Your task to perform on an android device: open a new tab in the chrome app Image 0: 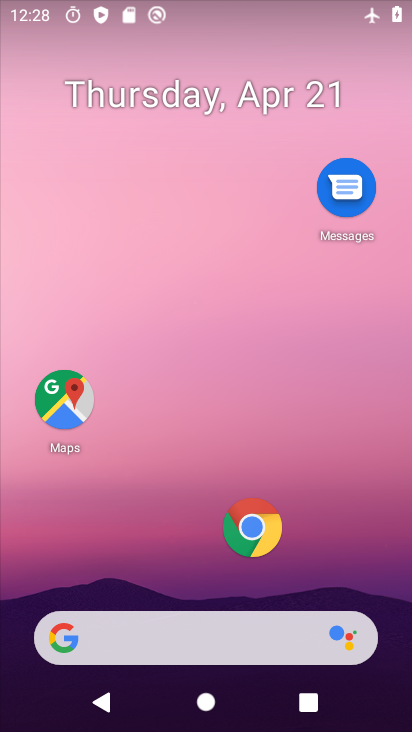
Step 0: click (259, 544)
Your task to perform on an android device: open a new tab in the chrome app Image 1: 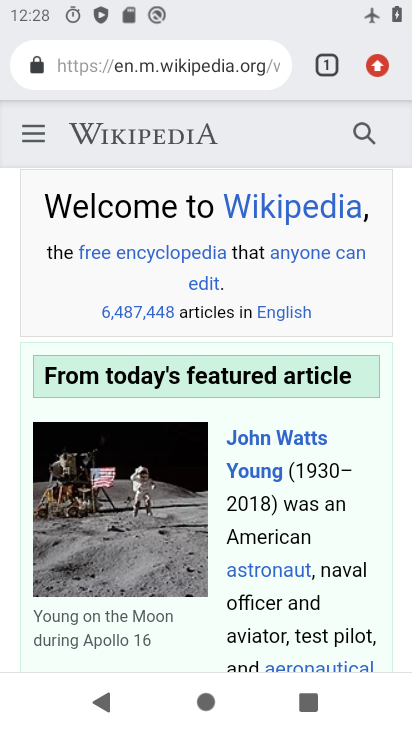
Step 1: click (370, 66)
Your task to perform on an android device: open a new tab in the chrome app Image 2: 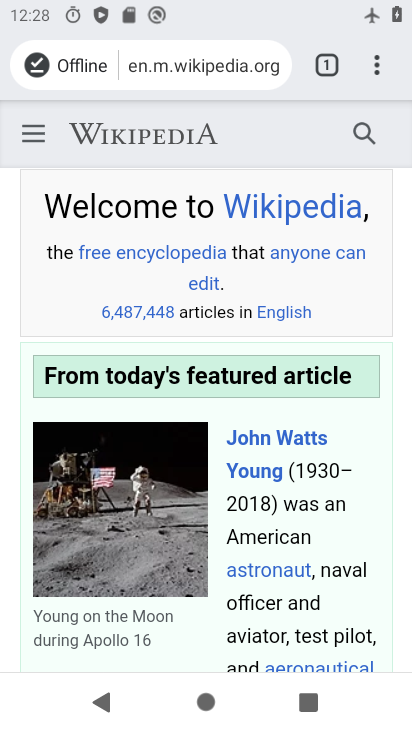
Step 2: click (371, 67)
Your task to perform on an android device: open a new tab in the chrome app Image 3: 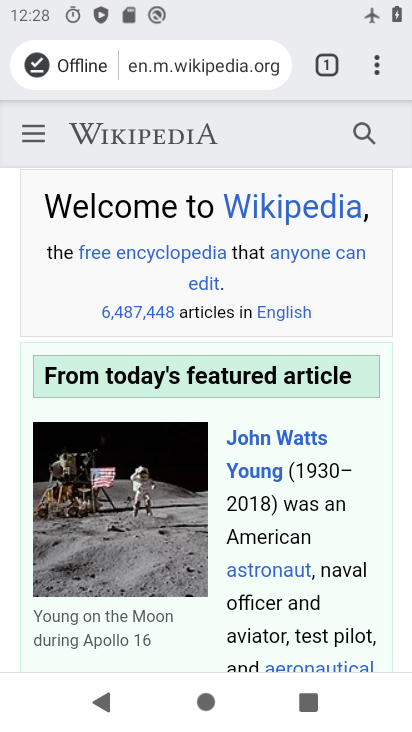
Step 3: click (371, 67)
Your task to perform on an android device: open a new tab in the chrome app Image 4: 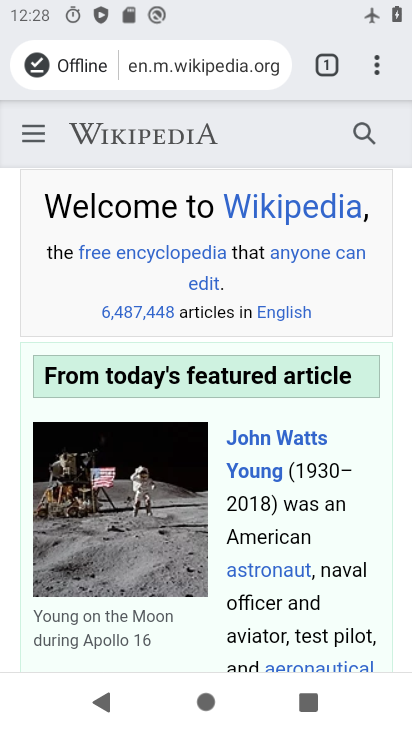
Step 4: click (371, 73)
Your task to perform on an android device: open a new tab in the chrome app Image 5: 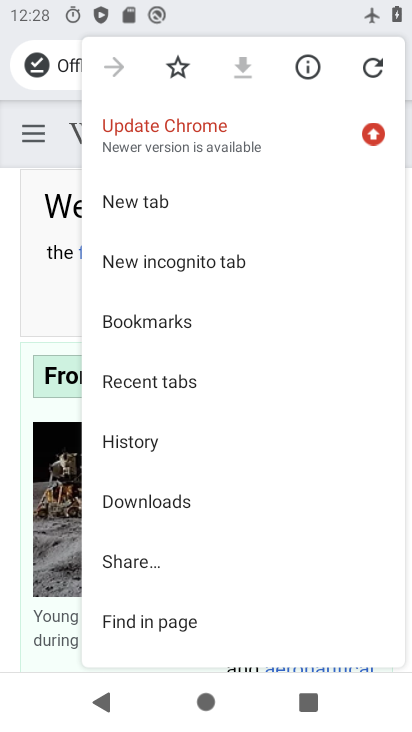
Step 5: click (255, 194)
Your task to perform on an android device: open a new tab in the chrome app Image 6: 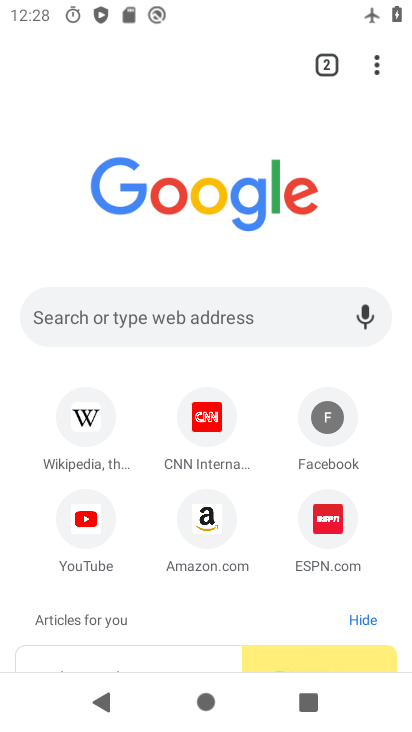
Step 6: task complete